Your task to perform on an android device: Toggle the flashlight Image 0: 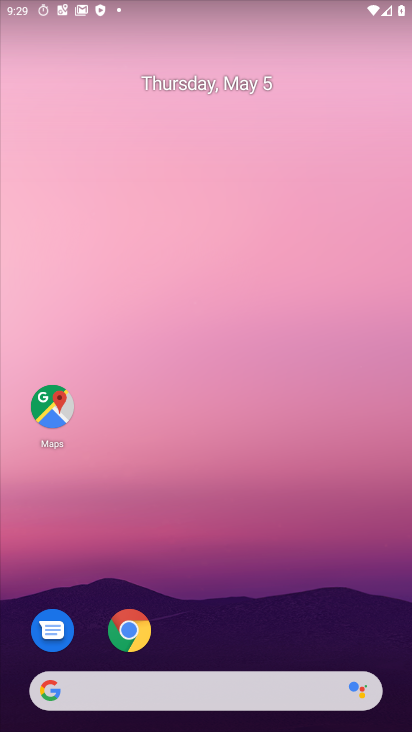
Step 0: drag from (127, 368) to (46, 110)
Your task to perform on an android device: Toggle the flashlight Image 1: 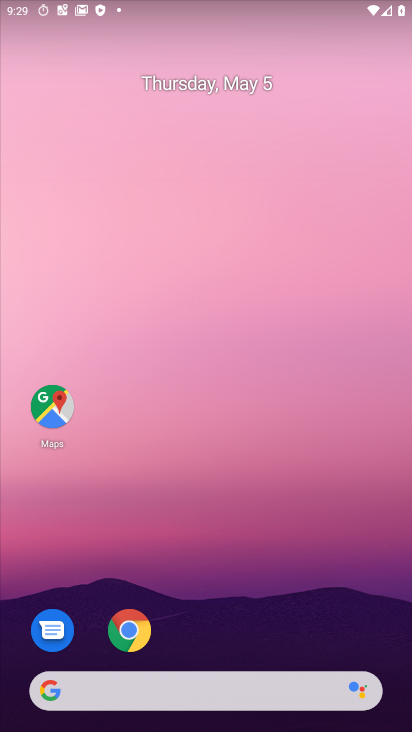
Step 1: drag from (273, 636) to (210, 61)
Your task to perform on an android device: Toggle the flashlight Image 2: 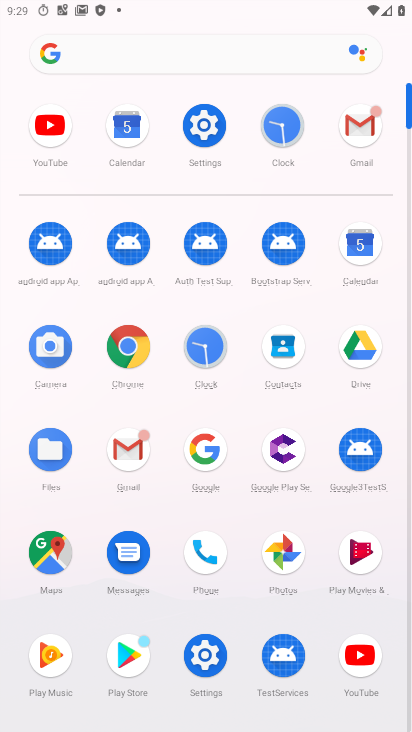
Step 2: click (208, 128)
Your task to perform on an android device: Toggle the flashlight Image 3: 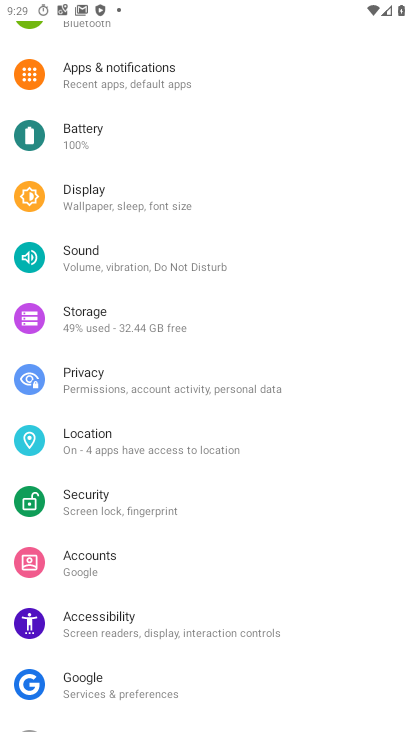
Step 3: drag from (209, 127) to (221, 478)
Your task to perform on an android device: Toggle the flashlight Image 4: 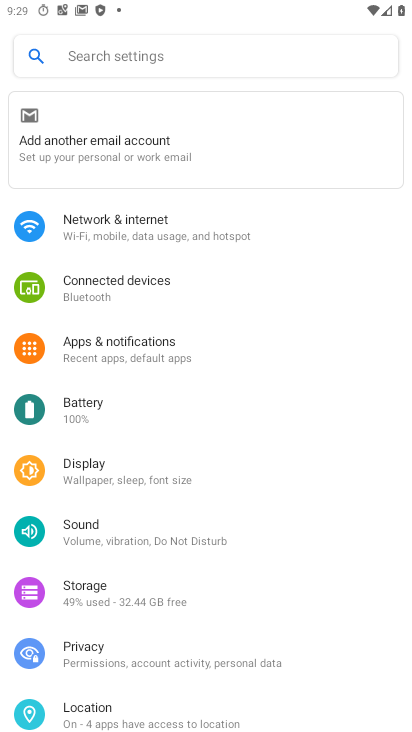
Step 4: click (157, 52)
Your task to perform on an android device: Toggle the flashlight Image 5: 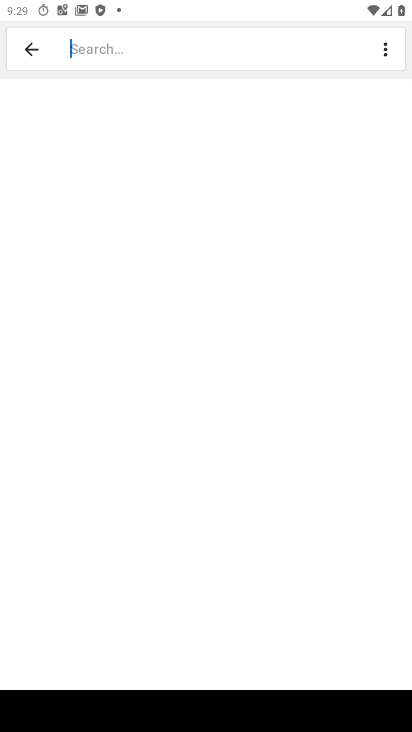
Step 5: type "flashlight"
Your task to perform on an android device: Toggle the flashlight Image 6: 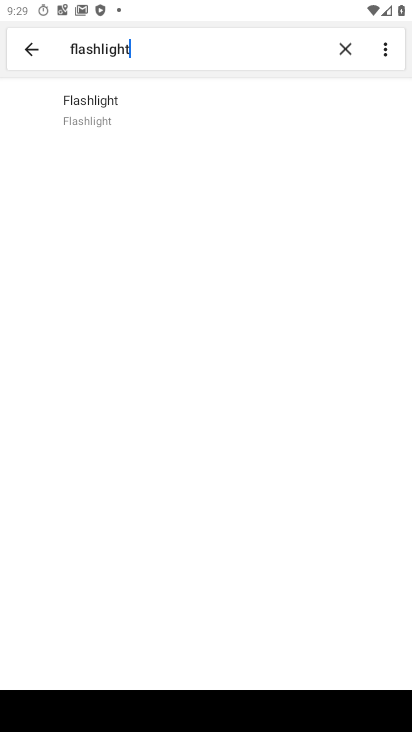
Step 6: click (95, 113)
Your task to perform on an android device: Toggle the flashlight Image 7: 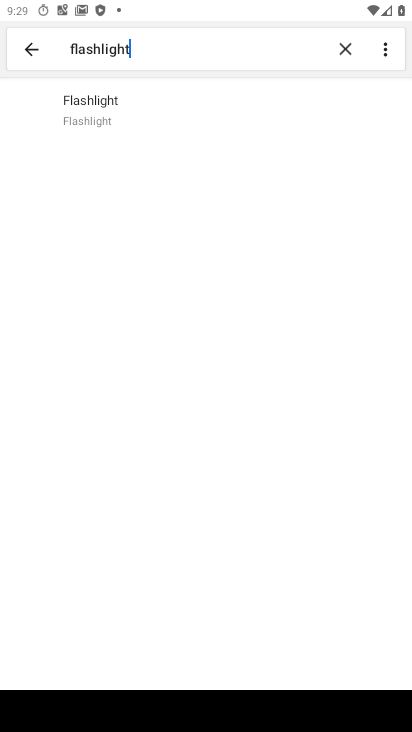
Step 7: click (95, 113)
Your task to perform on an android device: Toggle the flashlight Image 8: 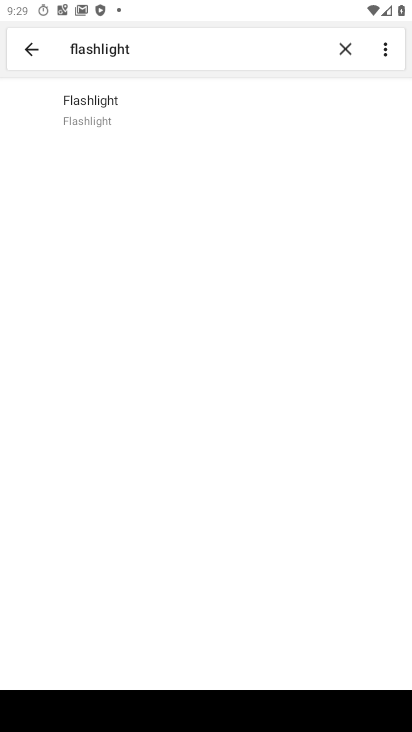
Step 8: click (95, 113)
Your task to perform on an android device: Toggle the flashlight Image 9: 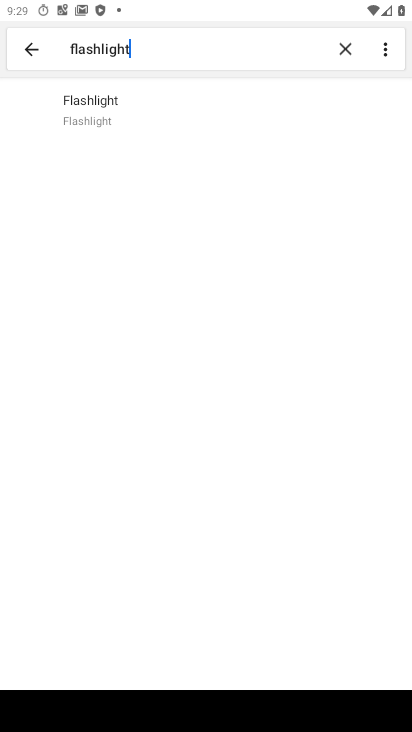
Step 9: task complete